Your task to perform on an android device: change the clock display to digital Image 0: 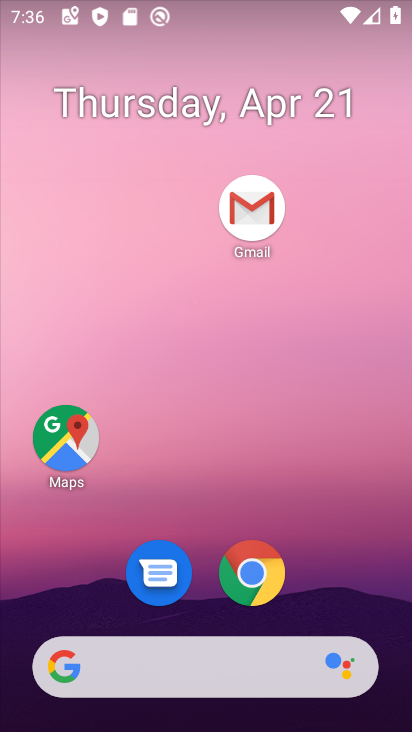
Step 0: drag from (344, 579) to (220, 47)
Your task to perform on an android device: change the clock display to digital Image 1: 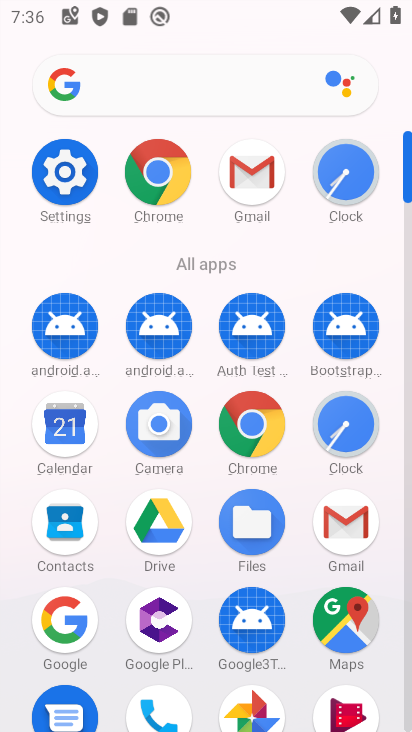
Step 1: click (364, 436)
Your task to perform on an android device: change the clock display to digital Image 2: 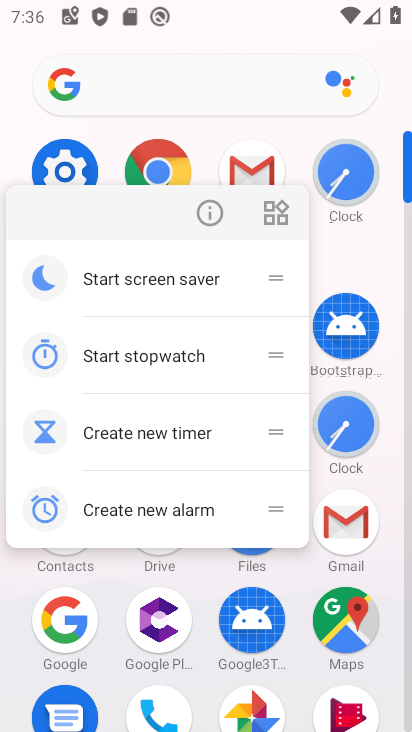
Step 2: click (345, 419)
Your task to perform on an android device: change the clock display to digital Image 3: 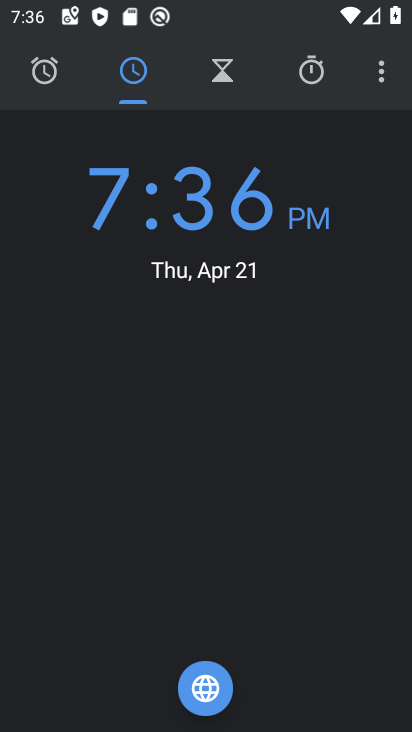
Step 3: click (381, 66)
Your task to perform on an android device: change the clock display to digital Image 4: 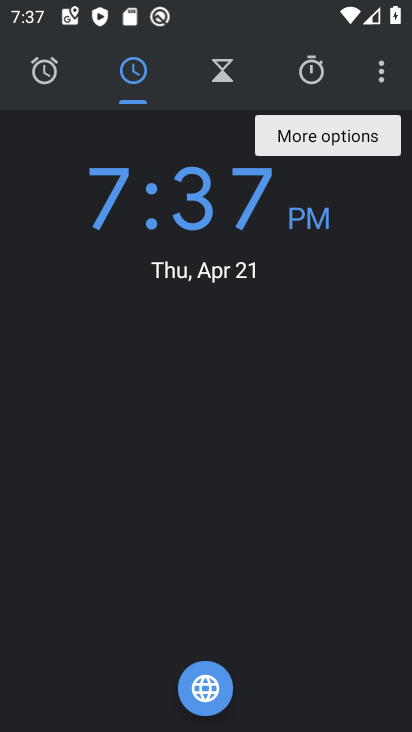
Step 4: click (381, 66)
Your task to perform on an android device: change the clock display to digital Image 5: 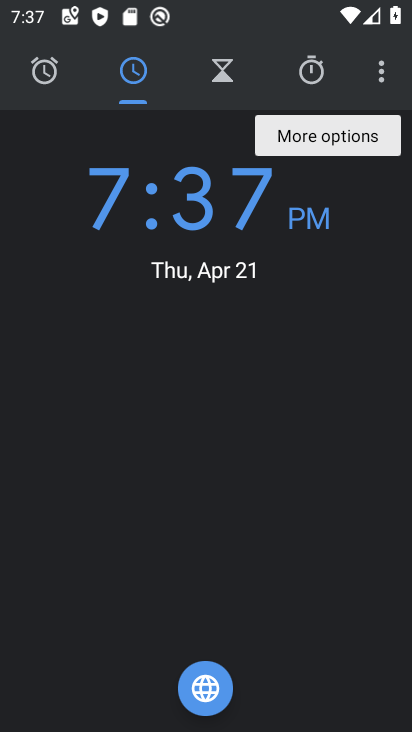
Step 5: click (381, 66)
Your task to perform on an android device: change the clock display to digital Image 6: 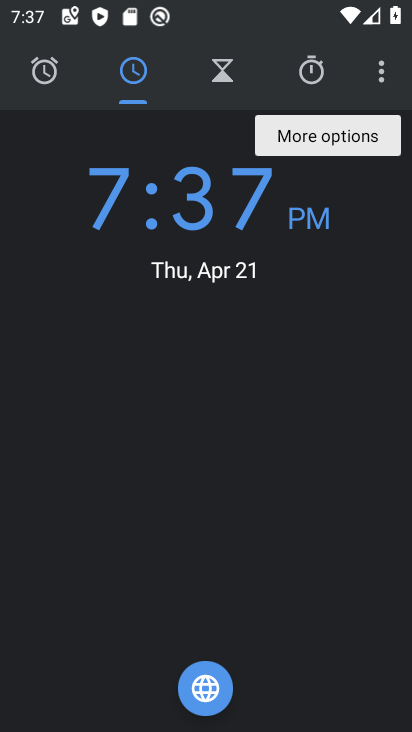
Step 6: click (381, 66)
Your task to perform on an android device: change the clock display to digital Image 7: 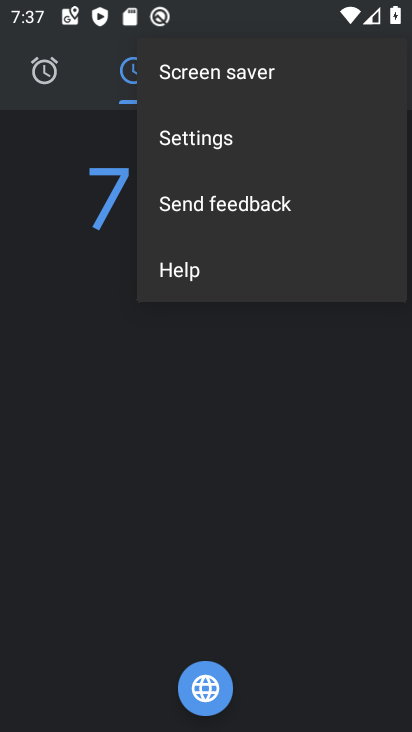
Step 7: click (225, 133)
Your task to perform on an android device: change the clock display to digital Image 8: 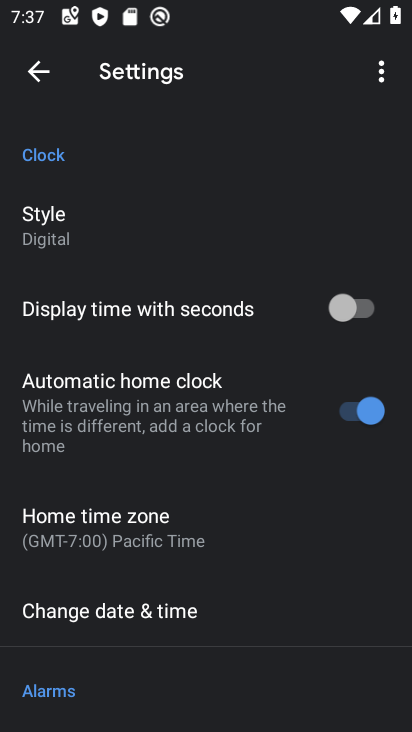
Step 8: click (60, 246)
Your task to perform on an android device: change the clock display to digital Image 9: 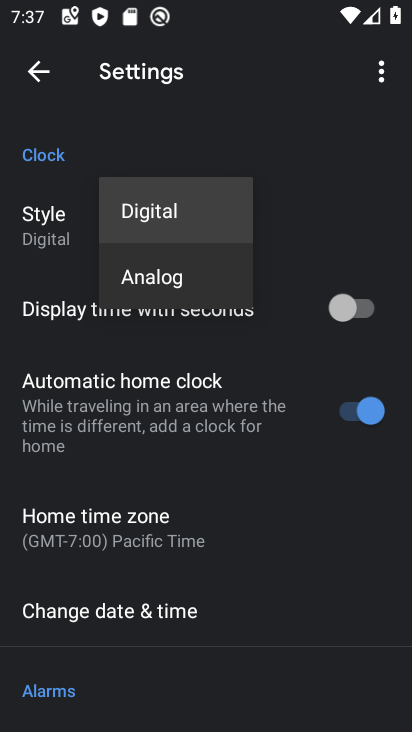
Step 9: task complete